Your task to perform on an android device: Open calendar and show me the second week of next month Image 0: 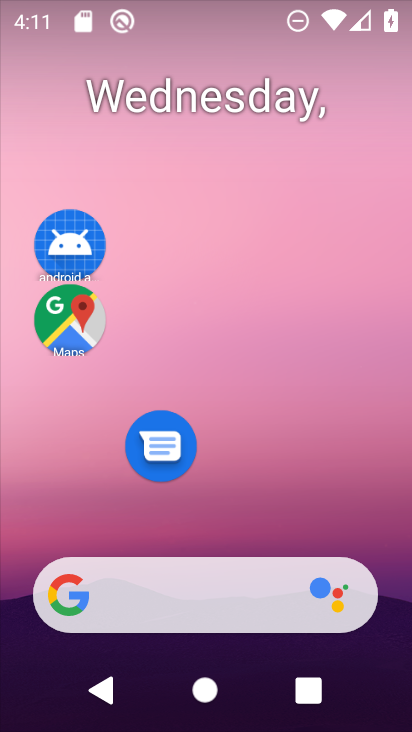
Step 0: drag from (307, 530) to (304, 269)
Your task to perform on an android device: Open calendar and show me the second week of next month Image 1: 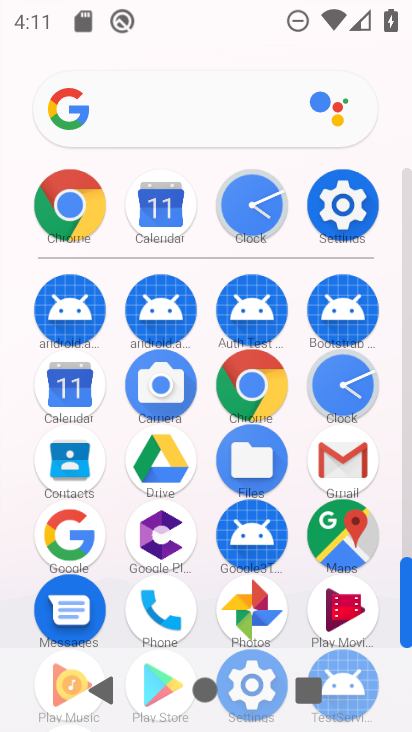
Step 1: click (60, 391)
Your task to perform on an android device: Open calendar and show me the second week of next month Image 2: 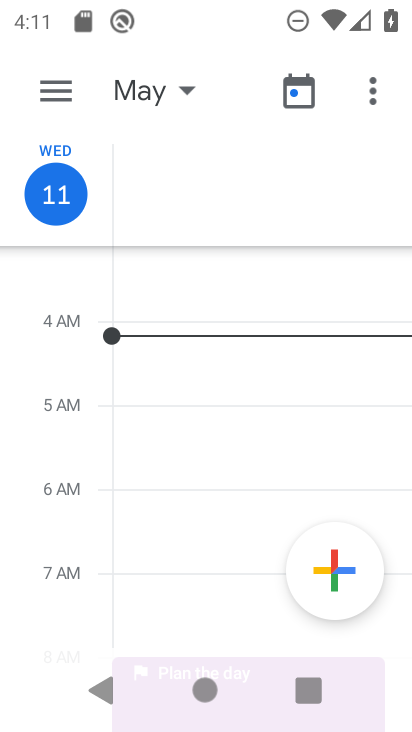
Step 2: click (188, 82)
Your task to perform on an android device: Open calendar and show me the second week of next month Image 3: 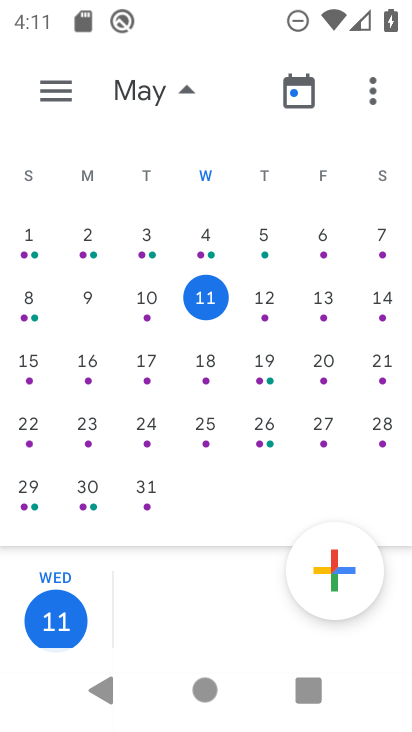
Step 3: drag from (377, 312) to (23, 334)
Your task to perform on an android device: Open calendar and show me the second week of next month Image 4: 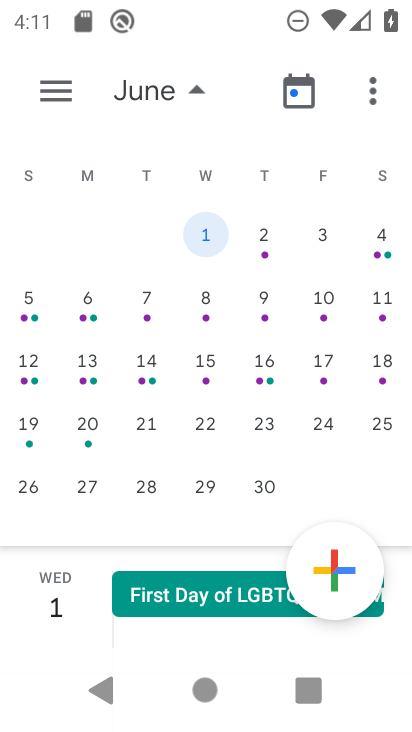
Step 4: click (214, 361)
Your task to perform on an android device: Open calendar and show me the second week of next month Image 5: 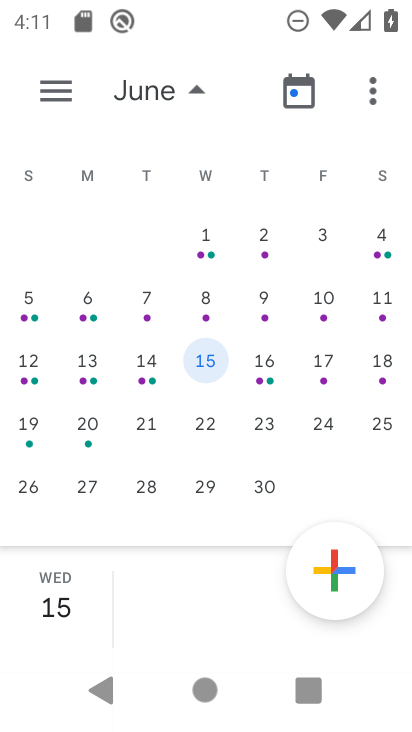
Step 5: task complete